Your task to perform on an android device: change your default location settings in chrome Image 0: 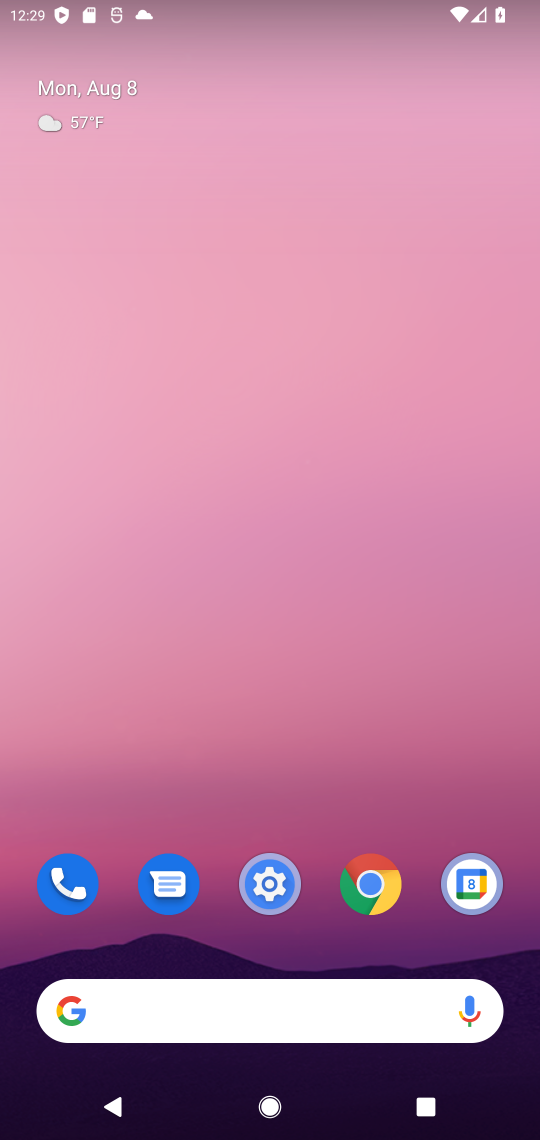
Step 0: click (351, 896)
Your task to perform on an android device: change your default location settings in chrome Image 1: 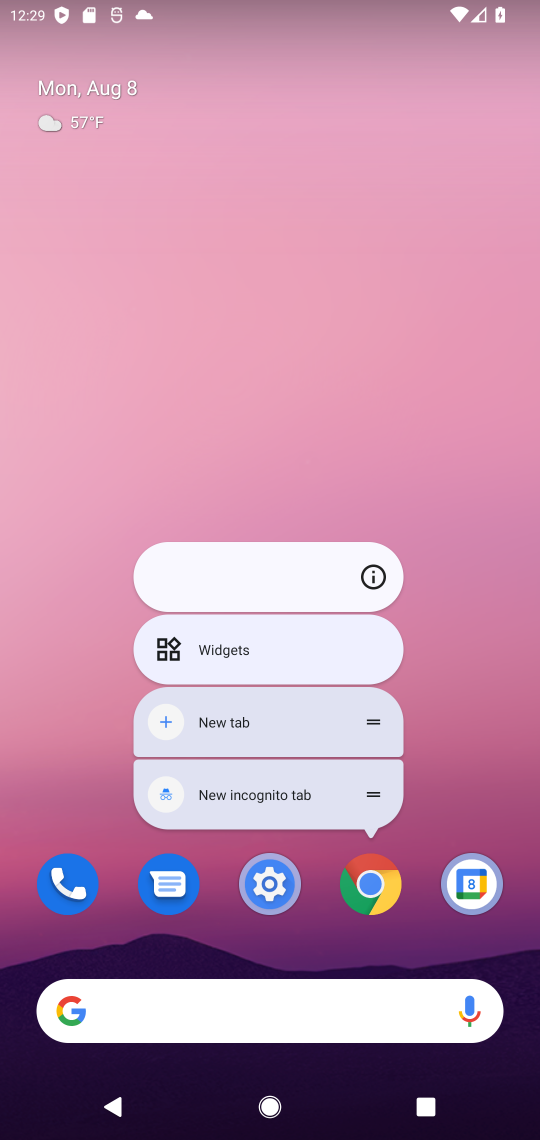
Step 1: click (382, 880)
Your task to perform on an android device: change your default location settings in chrome Image 2: 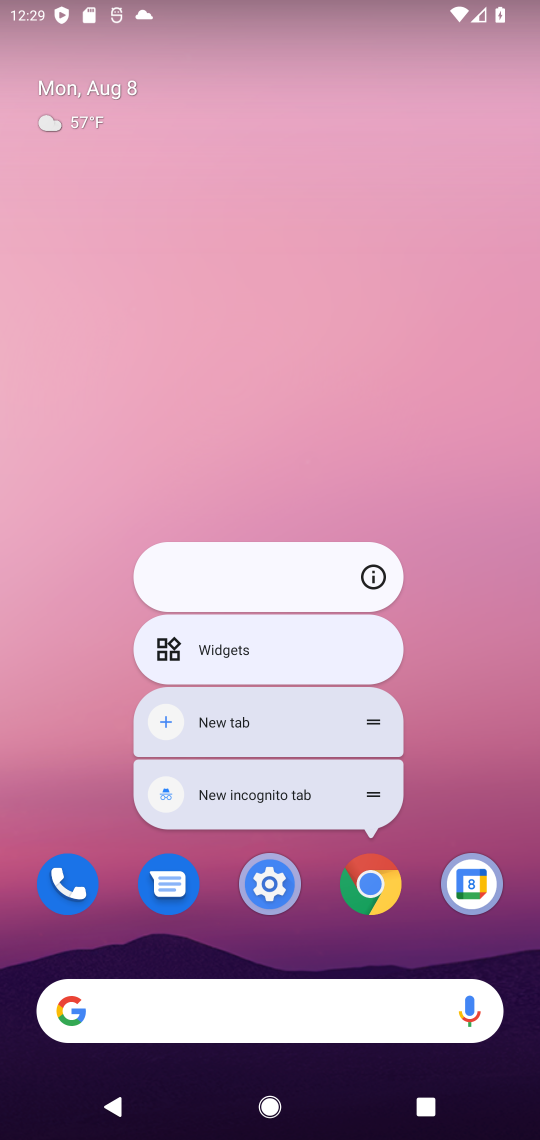
Step 2: click (382, 880)
Your task to perform on an android device: change your default location settings in chrome Image 3: 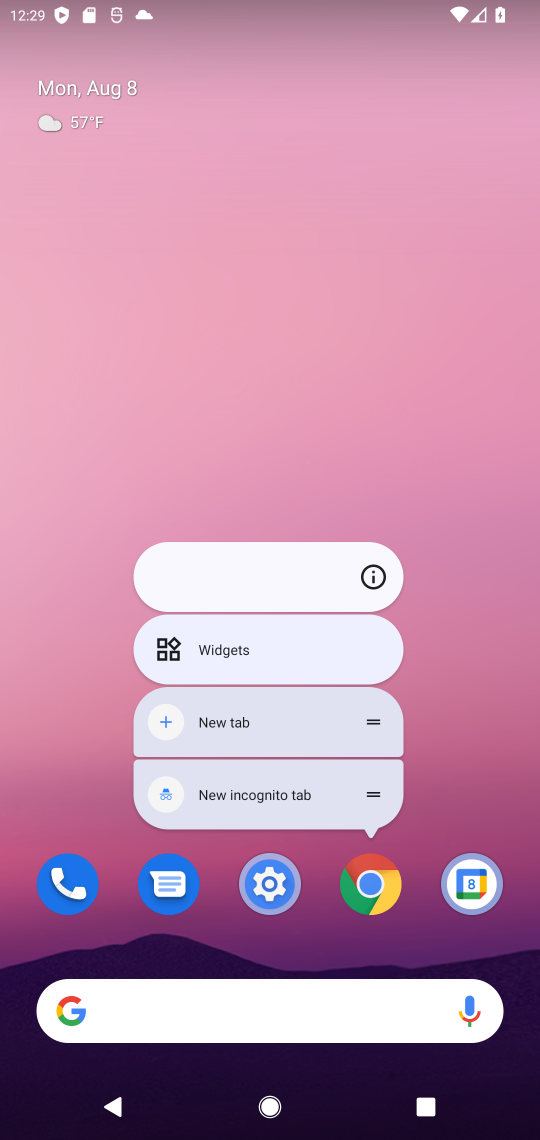
Step 3: click (382, 880)
Your task to perform on an android device: change your default location settings in chrome Image 4: 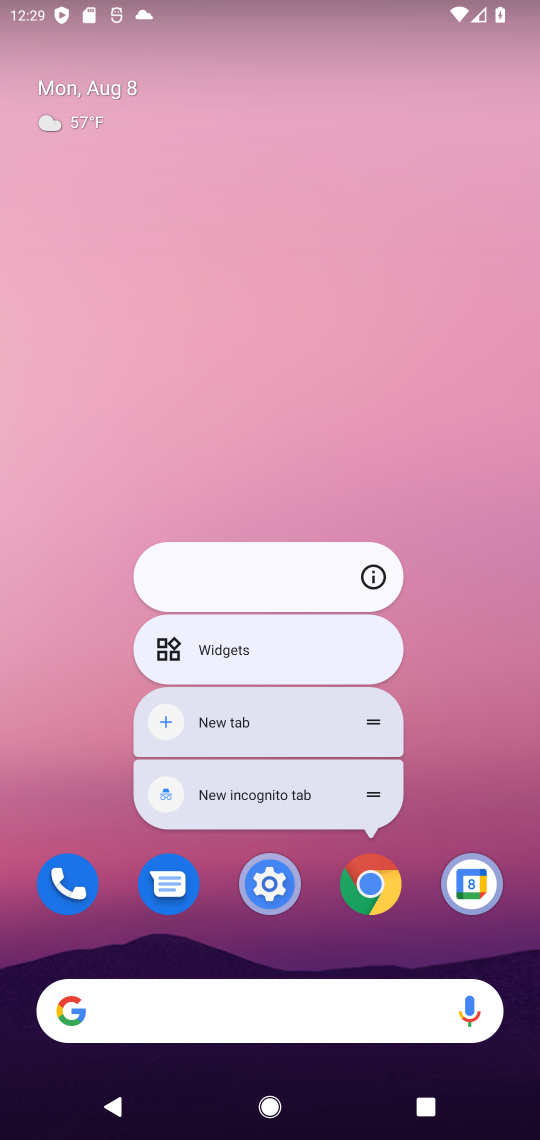
Step 4: click (382, 880)
Your task to perform on an android device: change your default location settings in chrome Image 5: 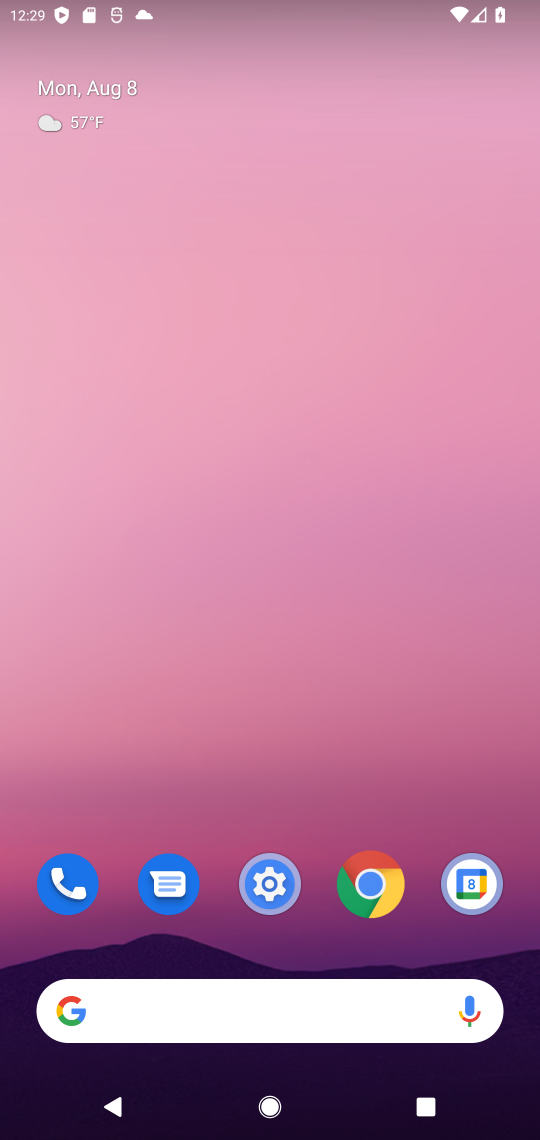
Step 5: click (382, 880)
Your task to perform on an android device: change your default location settings in chrome Image 6: 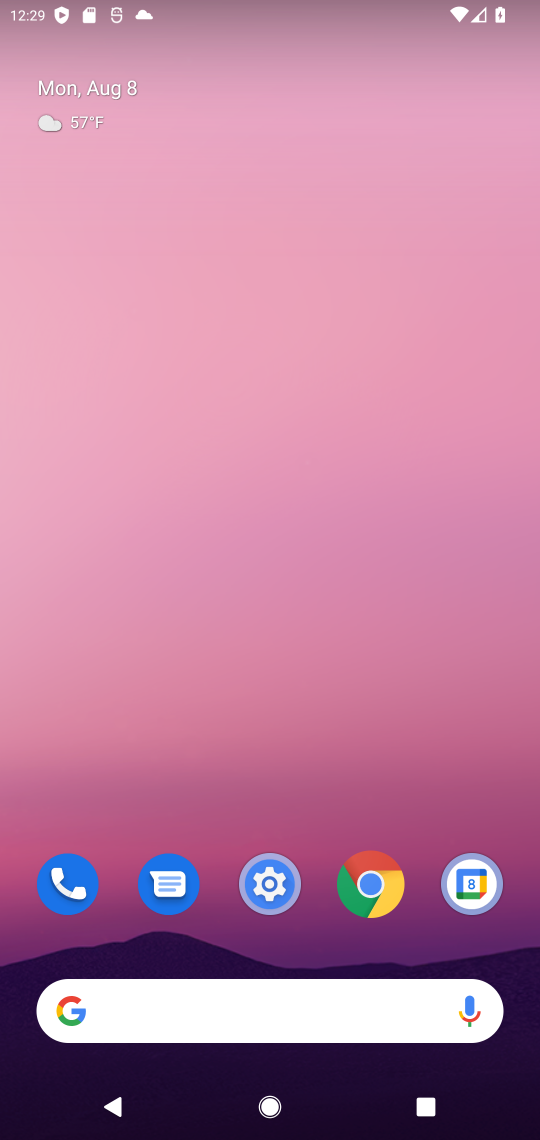
Step 6: click (382, 880)
Your task to perform on an android device: change your default location settings in chrome Image 7: 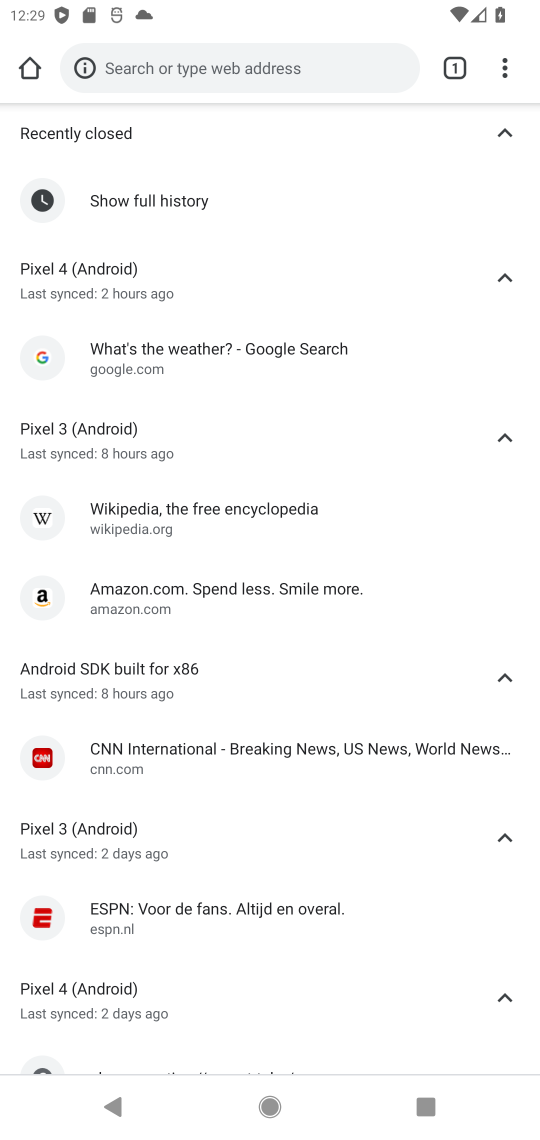
Step 7: click (511, 42)
Your task to perform on an android device: change your default location settings in chrome Image 8: 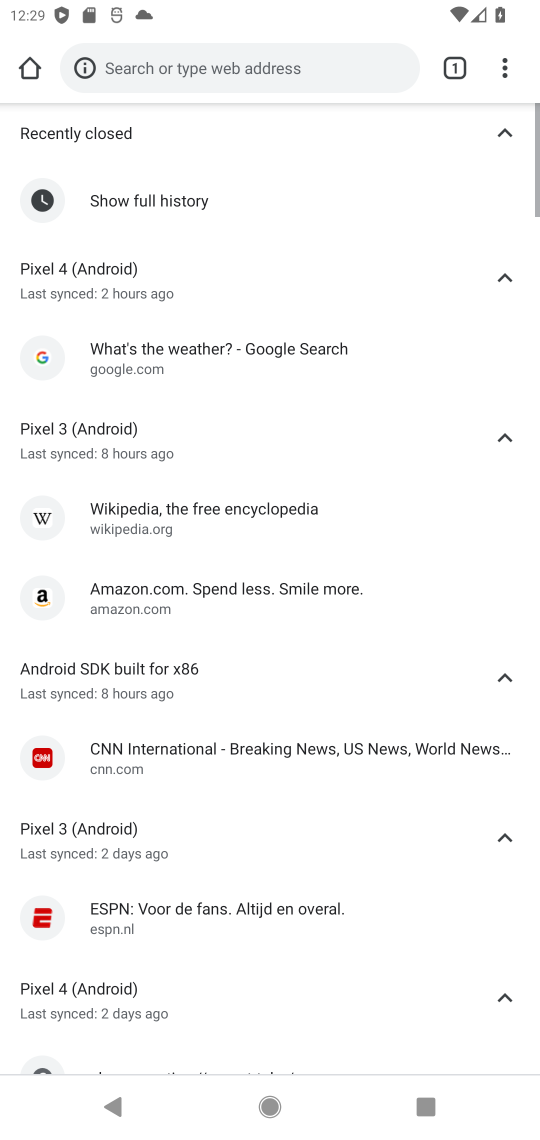
Step 8: click (497, 80)
Your task to perform on an android device: change your default location settings in chrome Image 9: 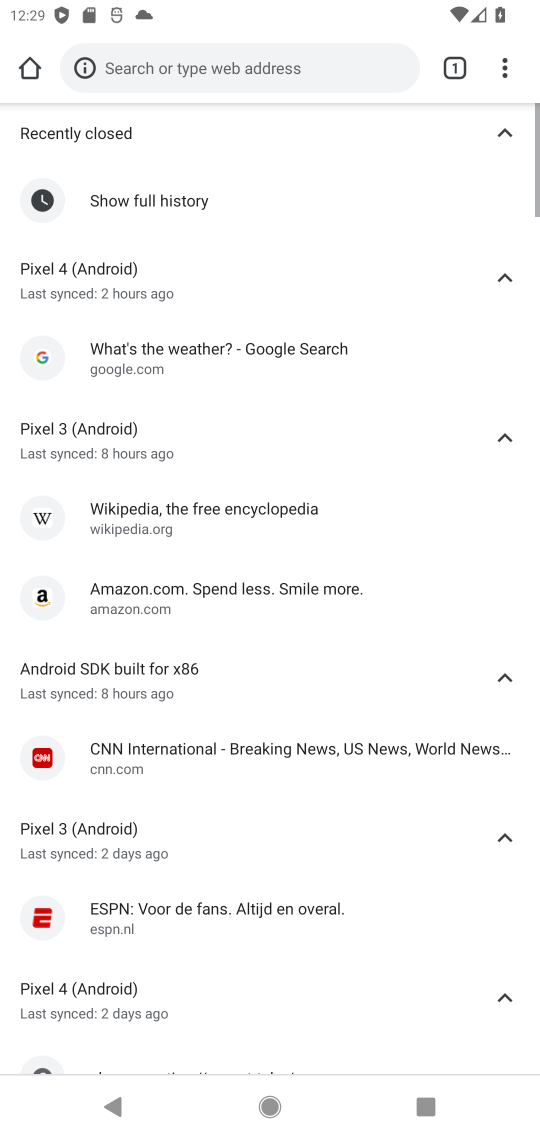
Step 9: click (503, 72)
Your task to perform on an android device: change your default location settings in chrome Image 10: 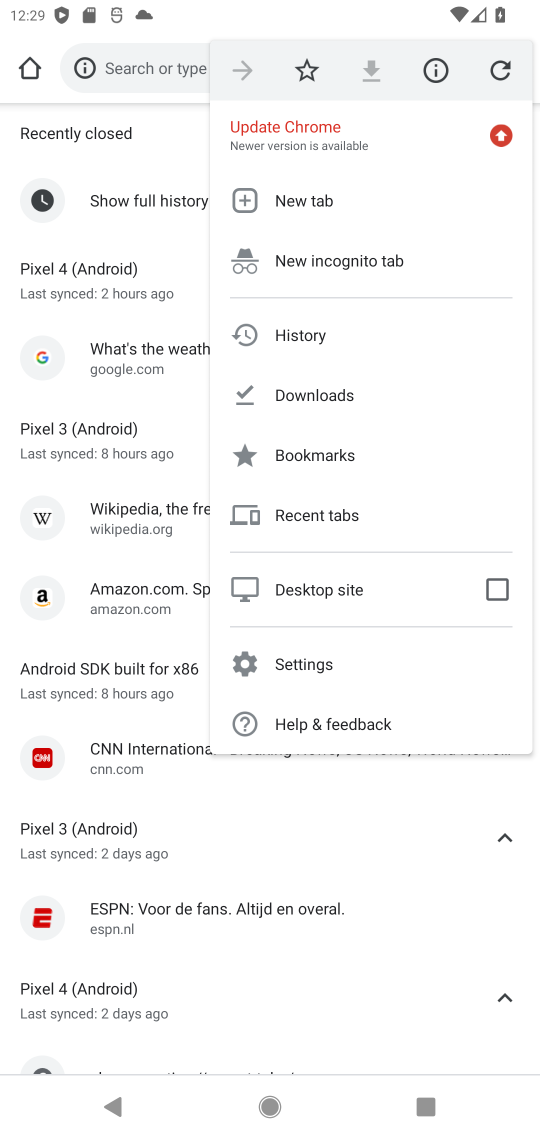
Step 10: click (360, 664)
Your task to perform on an android device: change your default location settings in chrome Image 11: 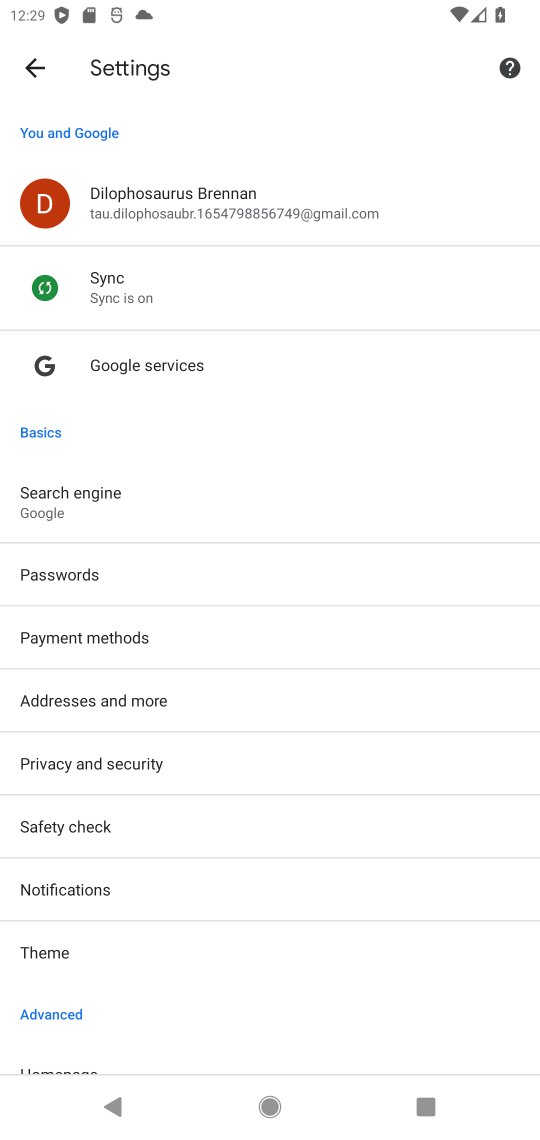
Step 11: drag from (156, 999) to (188, 358)
Your task to perform on an android device: change your default location settings in chrome Image 12: 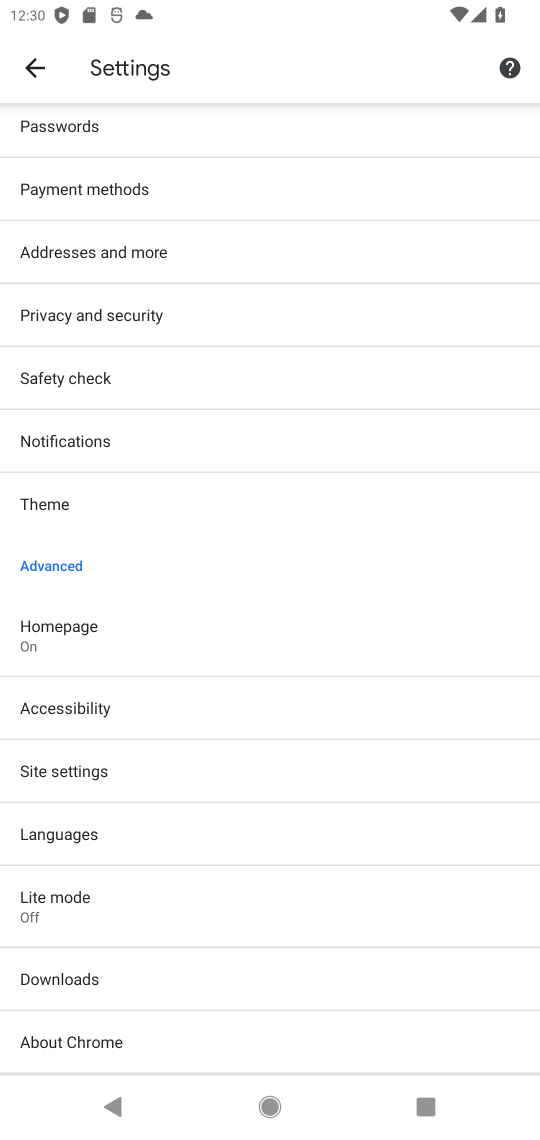
Step 12: drag from (328, 239) to (296, 893)
Your task to perform on an android device: change your default location settings in chrome Image 13: 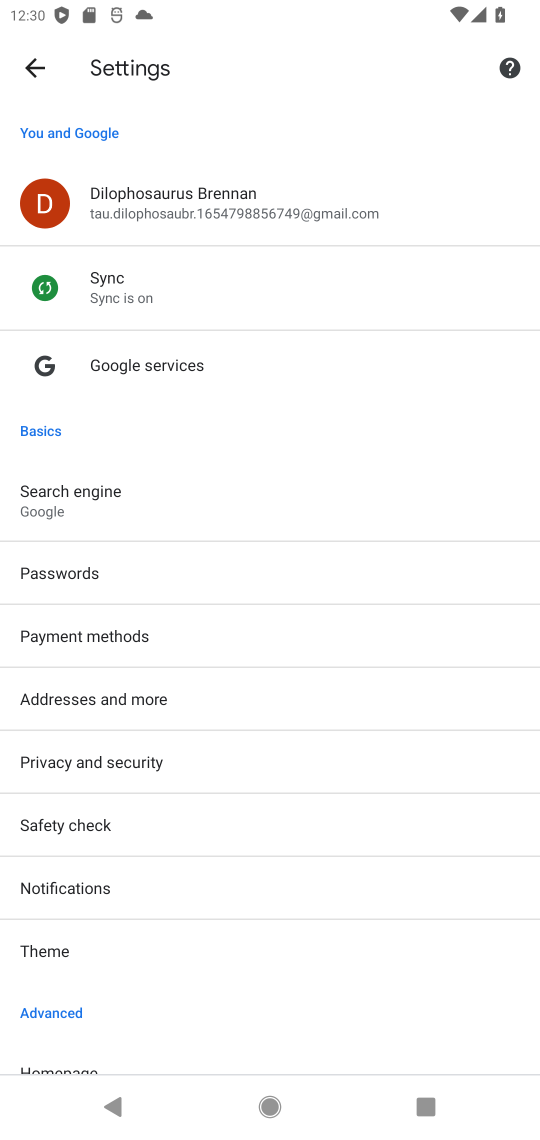
Step 13: drag from (345, 851) to (360, 194)
Your task to perform on an android device: change your default location settings in chrome Image 14: 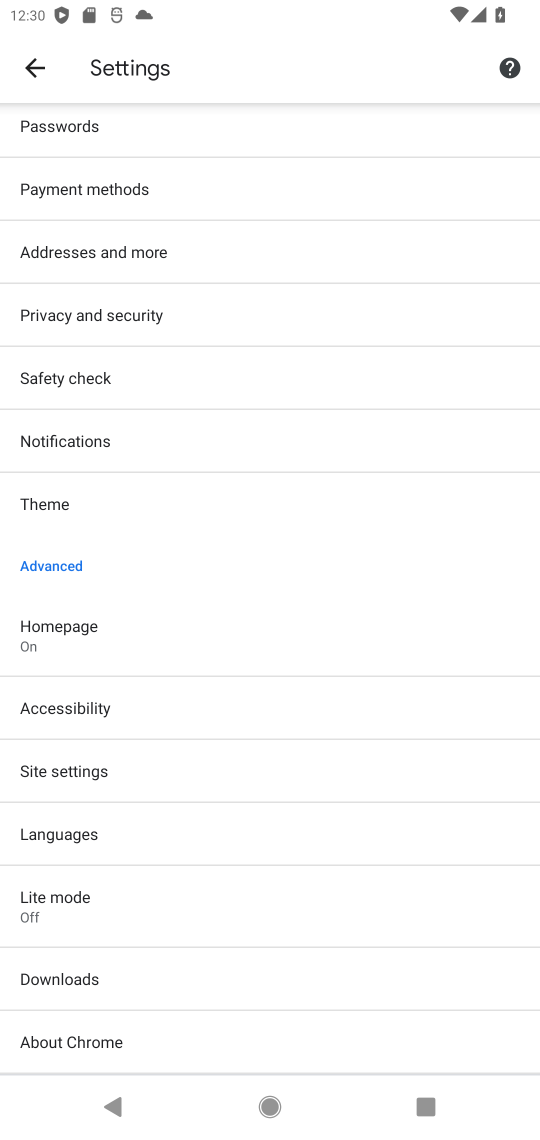
Step 14: click (341, 772)
Your task to perform on an android device: change your default location settings in chrome Image 15: 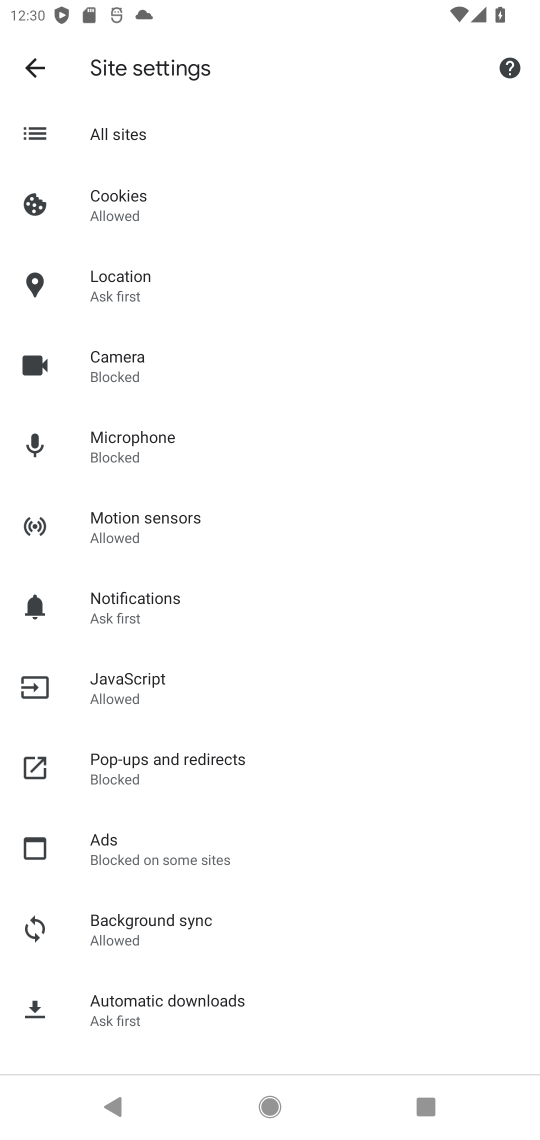
Step 15: click (165, 298)
Your task to perform on an android device: change your default location settings in chrome Image 16: 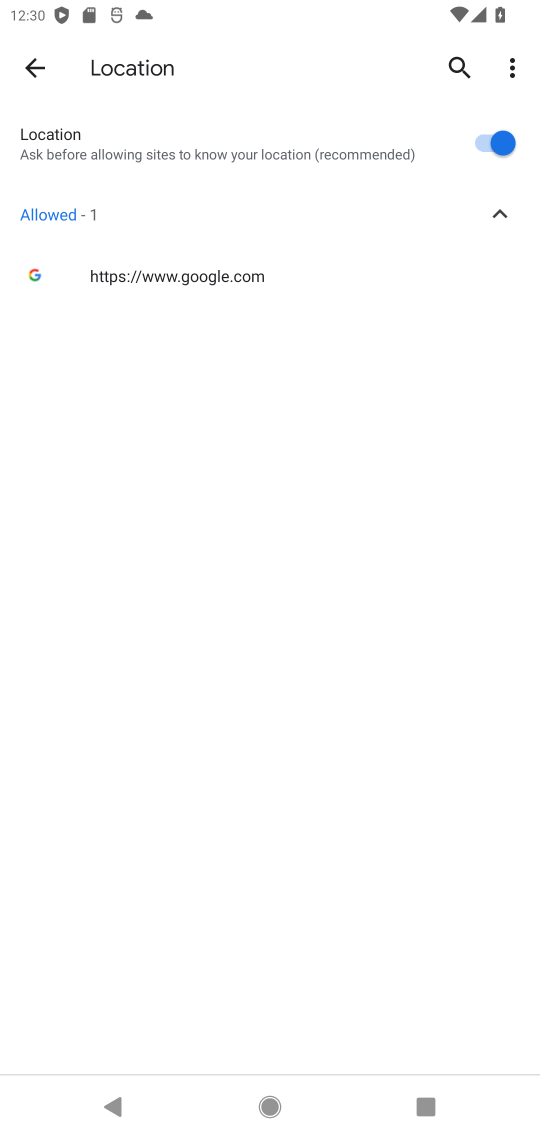
Step 16: click (500, 138)
Your task to perform on an android device: change your default location settings in chrome Image 17: 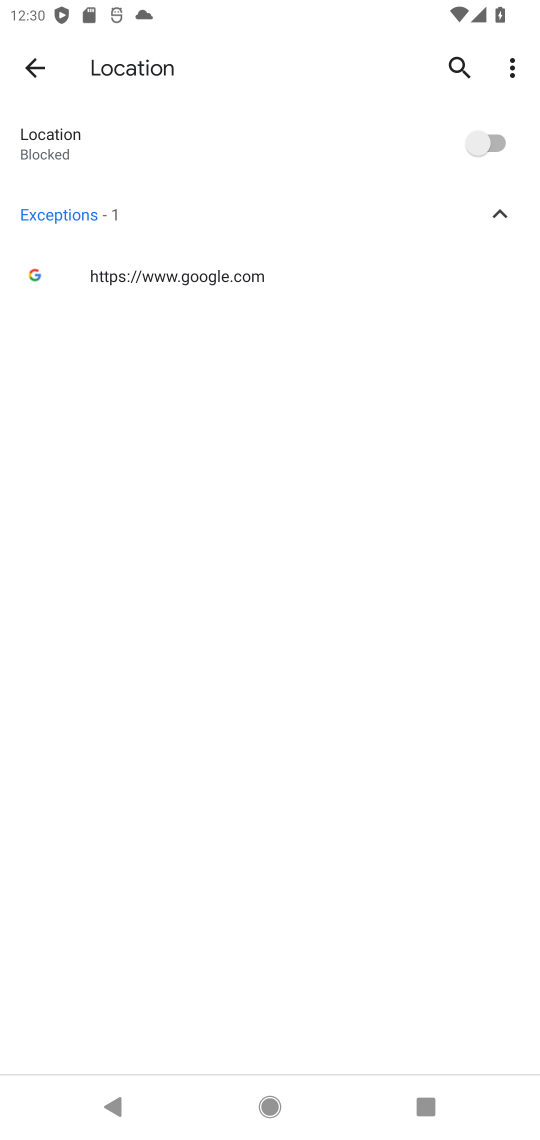
Step 17: task complete